Your task to perform on an android device: Go to Google maps Image 0: 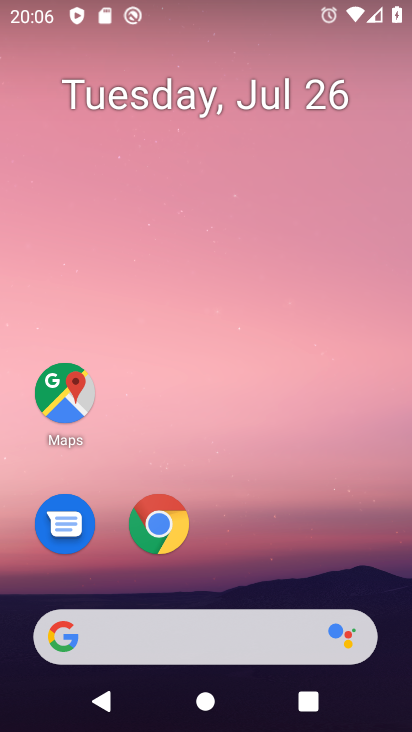
Step 0: click (63, 389)
Your task to perform on an android device: Go to Google maps Image 1: 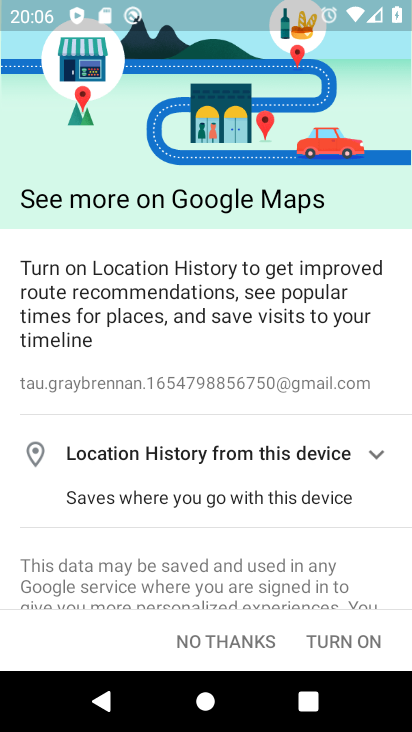
Step 1: click (352, 639)
Your task to perform on an android device: Go to Google maps Image 2: 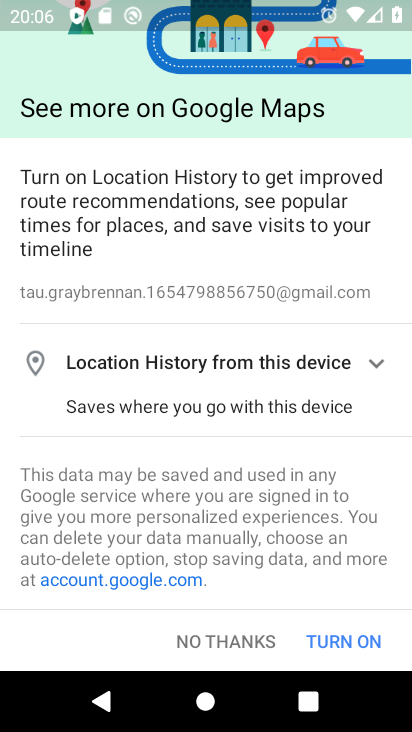
Step 2: click (352, 636)
Your task to perform on an android device: Go to Google maps Image 3: 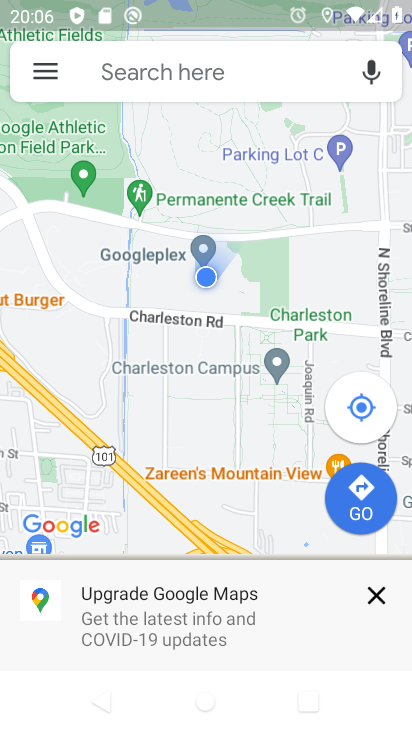
Step 3: task complete